Your task to perform on an android device: When is my next meeting? Image 0: 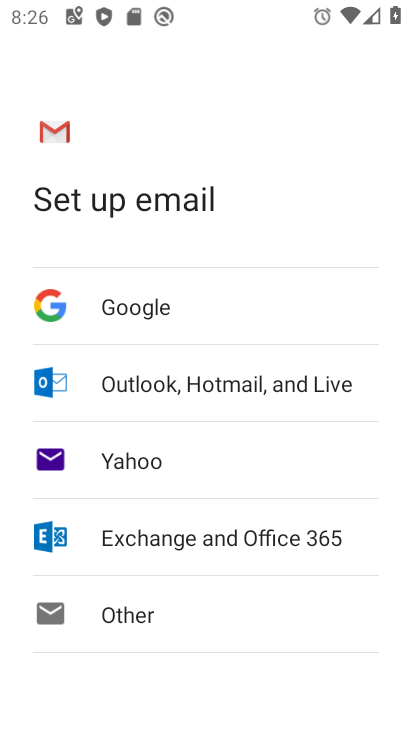
Step 0: press home button
Your task to perform on an android device: When is my next meeting? Image 1: 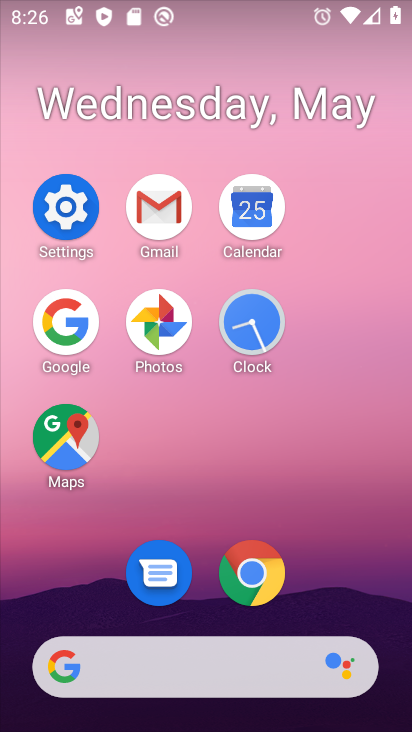
Step 1: click (240, 213)
Your task to perform on an android device: When is my next meeting? Image 2: 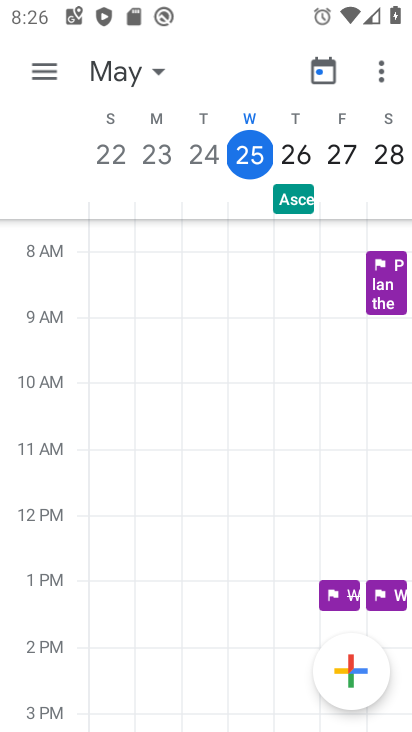
Step 2: click (345, 163)
Your task to perform on an android device: When is my next meeting? Image 3: 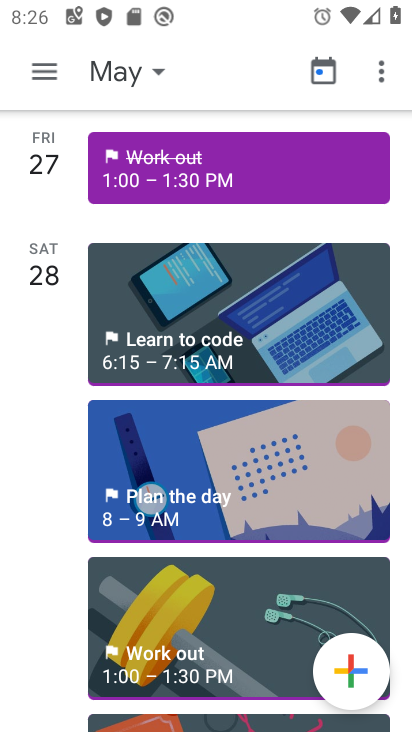
Step 3: task complete